Your task to perform on an android device: turn on bluetooth scan Image 0: 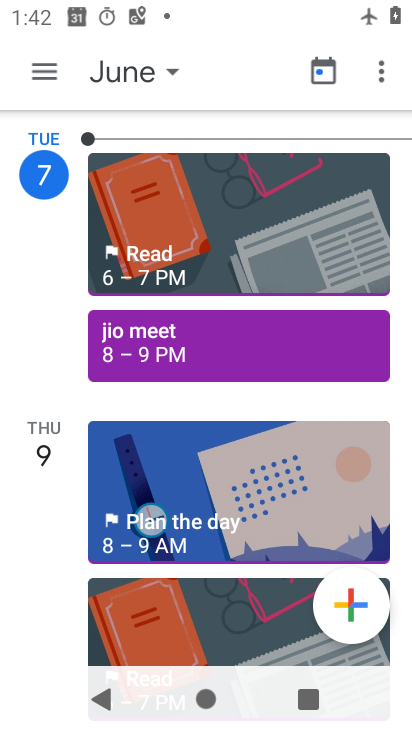
Step 0: press home button
Your task to perform on an android device: turn on bluetooth scan Image 1: 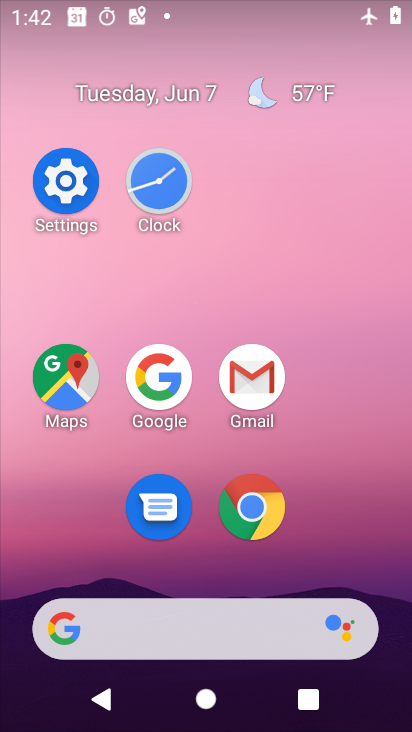
Step 1: click (66, 167)
Your task to perform on an android device: turn on bluetooth scan Image 2: 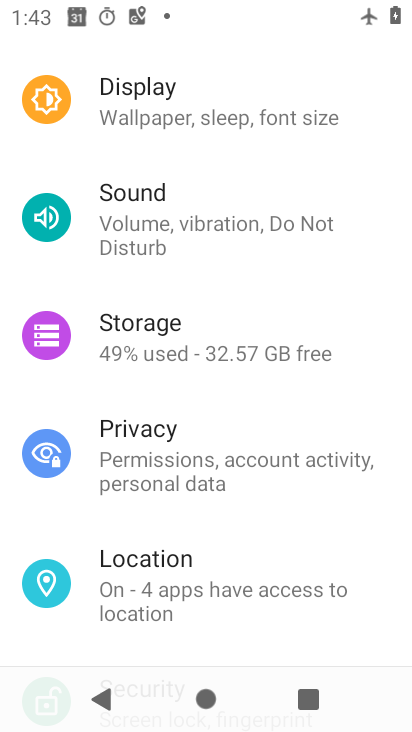
Step 2: click (236, 577)
Your task to perform on an android device: turn on bluetooth scan Image 3: 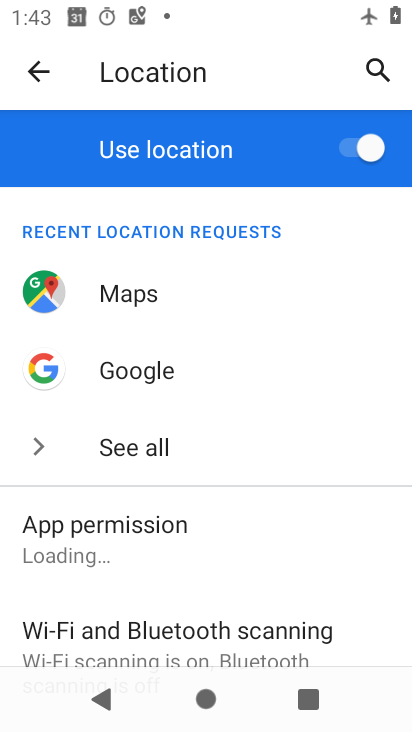
Step 3: drag from (227, 561) to (251, 190)
Your task to perform on an android device: turn on bluetooth scan Image 4: 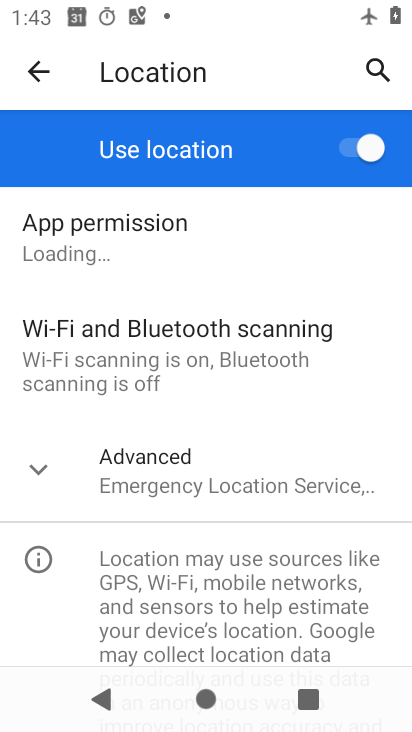
Step 4: click (253, 321)
Your task to perform on an android device: turn on bluetooth scan Image 5: 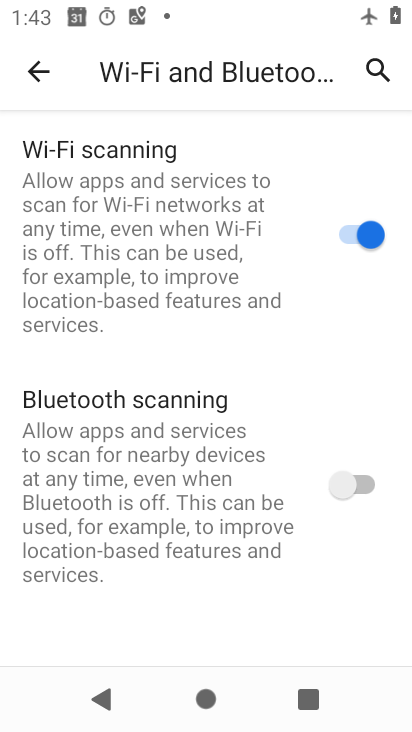
Step 5: click (332, 492)
Your task to perform on an android device: turn on bluetooth scan Image 6: 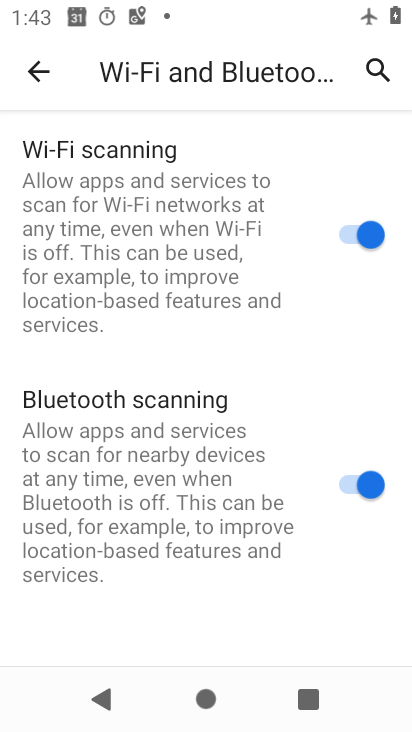
Step 6: task complete